Your task to perform on an android device: Open the calendar app, open the side menu, and click the "Day" option Image 0: 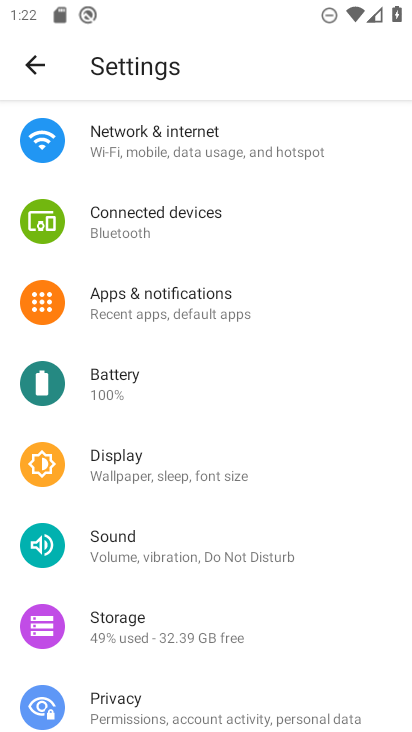
Step 0: press home button
Your task to perform on an android device: Open the calendar app, open the side menu, and click the "Day" option Image 1: 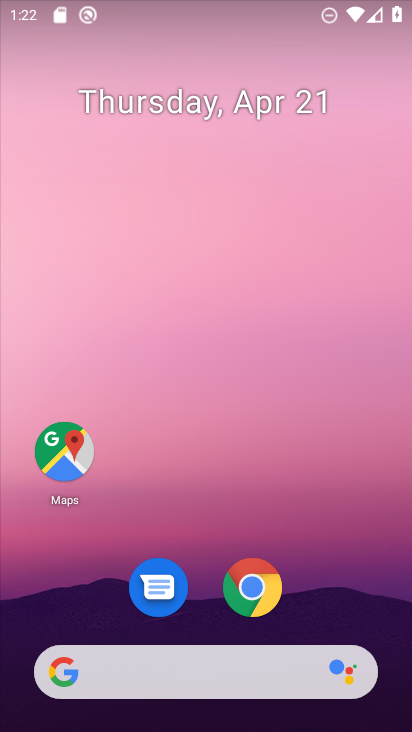
Step 1: drag from (330, 533) to (185, 13)
Your task to perform on an android device: Open the calendar app, open the side menu, and click the "Day" option Image 2: 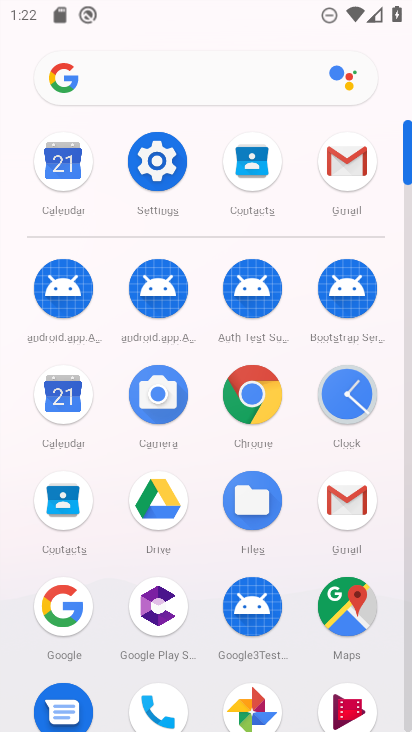
Step 2: click (71, 396)
Your task to perform on an android device: Open the calendar app, open the side menu, and click the "Day" option Image 3: 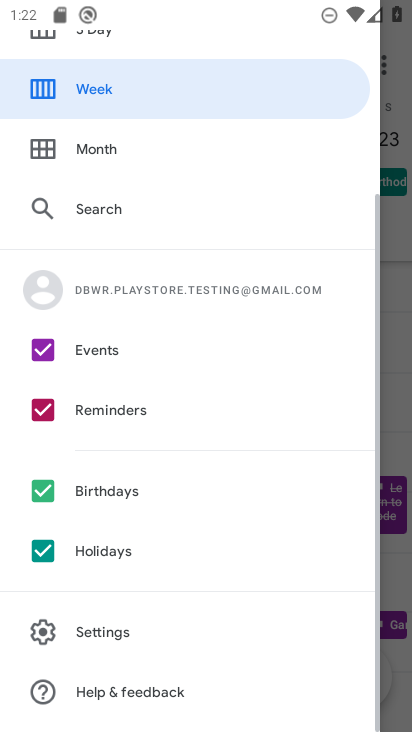
Step 3: drag from (167, 194) to (230, 569)
Your task to perform on an android device: Open the calendar app, open the side menu, and click the "Day" option Image 4: 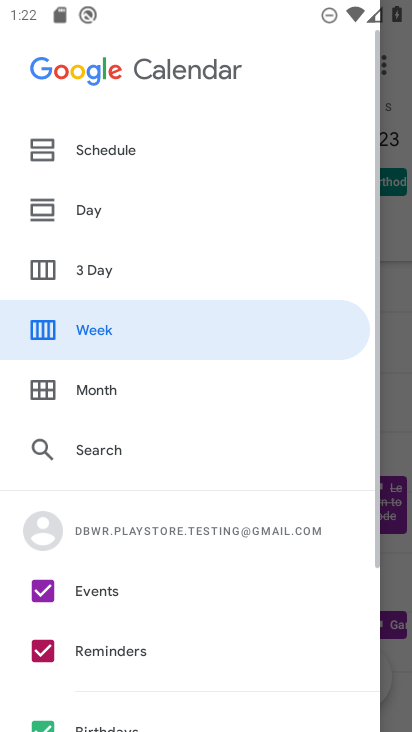
Step 4: click (70, 205)
Your task to perform on an android device: Open the calendar app, open the side menu, and click the "Day" option Image 5: 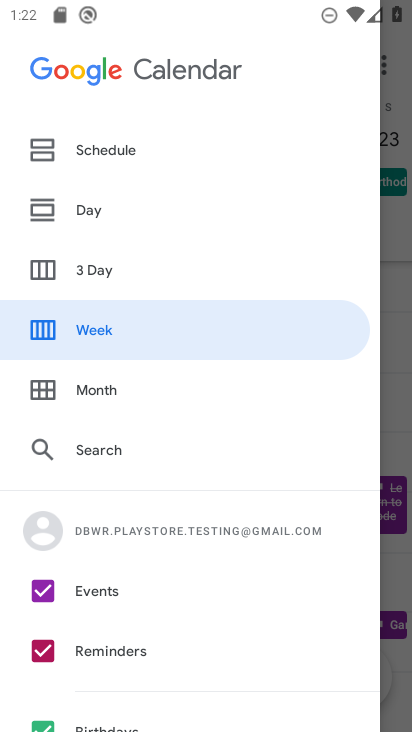
Step 5: click (92, 207)
Your task to perform on an android device: Open the calendar app, open the side menu, and click the "Day" option Image 6: 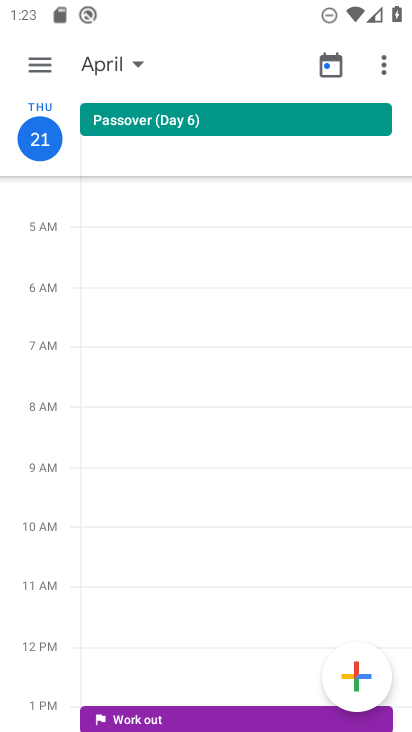
Step 6: task complete